Your task to perform on an android device: Go to notification settings Image 0: 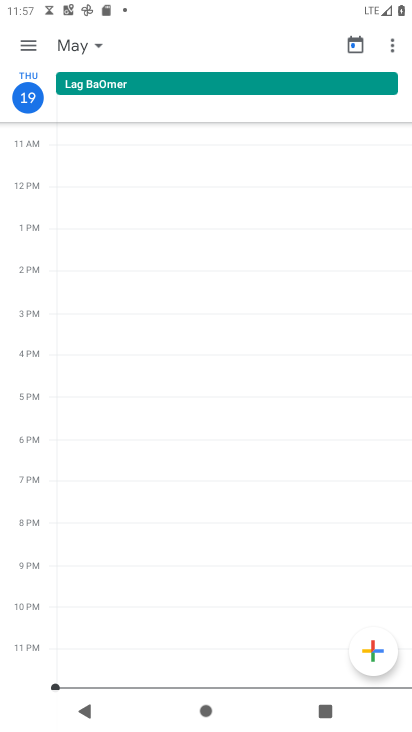
Step 0: press home button
Your task to perform on an android device: Go to notification settings Image 1: 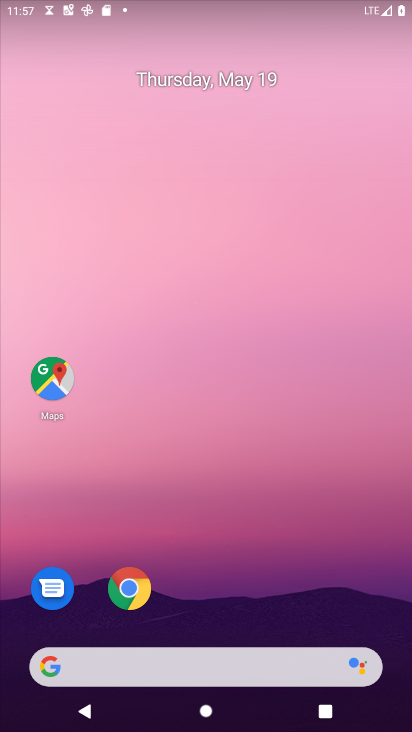
Step 1: drag from (293, 464) to (190, 41)
Your task to perform on an android device: Go to notification settings Image 2: 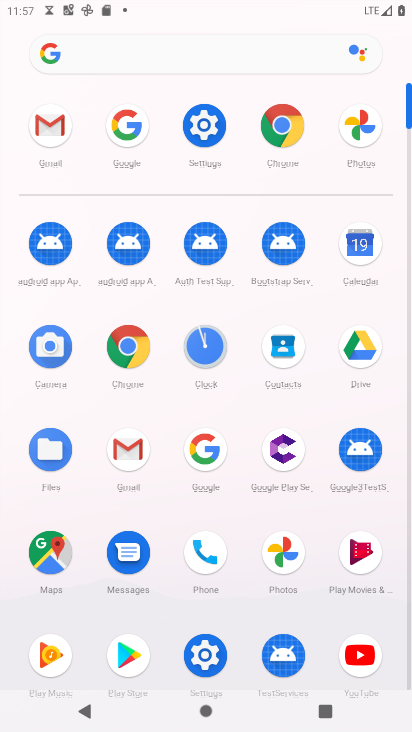
Step 2: click (203, 122)
Your task to perform on an android device: Go to notification settings Image 3: 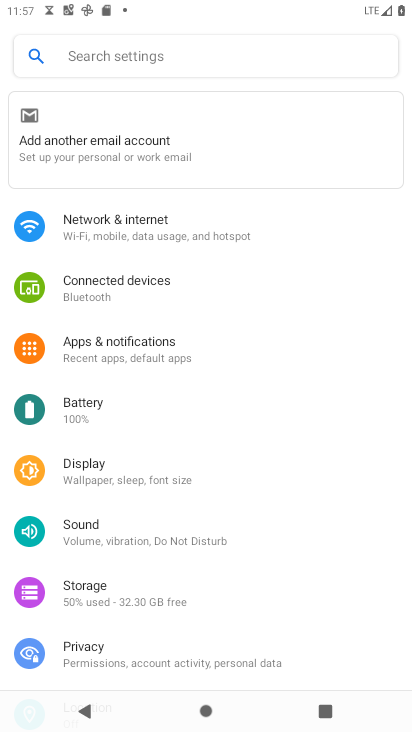
Step 3: click (134, 347)
Your task to perform on an android device: Go to notification settings Image 4: 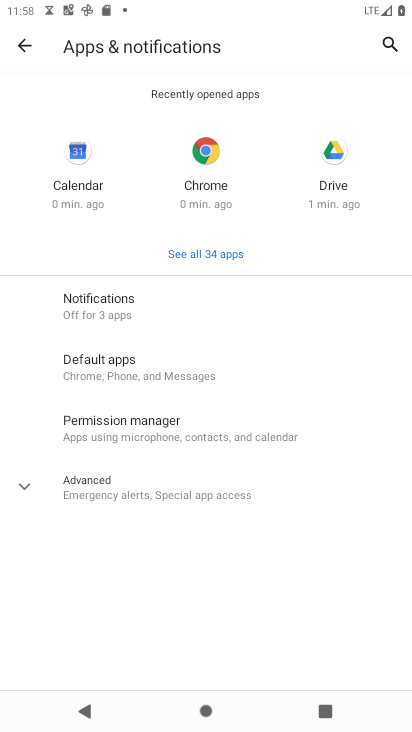
Step 4: task complete